Your task to perform on an android device: turn on translation in the chrome app Image 0: 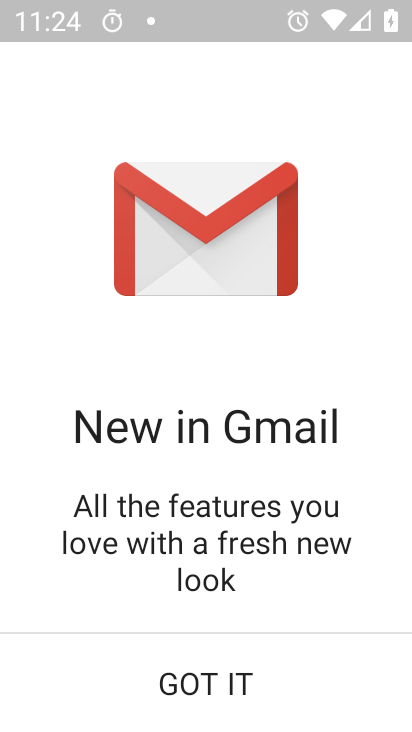
Step 0: press home button
Your task to perform on an android device: turn on translation in the chrome app Image 1: 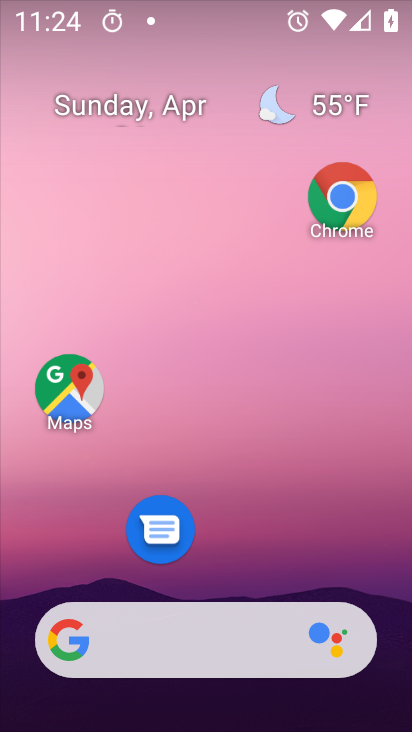
Step 1: drag from (161, 577) to (135, 22)
Your task to perform on an android device: turn on translation in the chrome app Image 2: 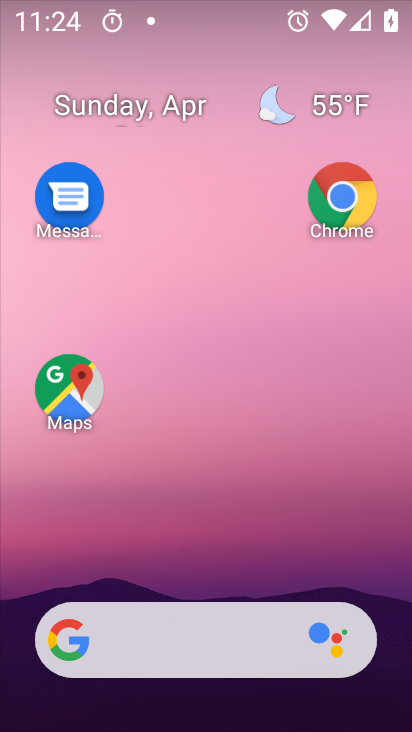
Step 2: drag from (203, 594) to (203, 55)
Your task to perform on an android device: turn on translation in the chrome app Image 3: 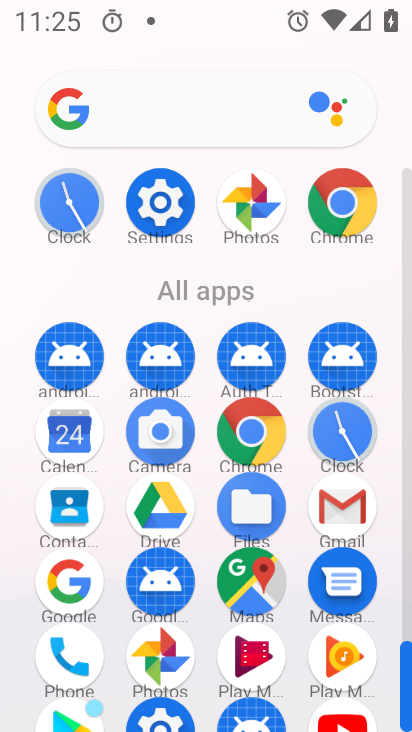
Step 3: click (244, 413)
Your task to perform on an android device: turn on translation in the chrome app Image 4: 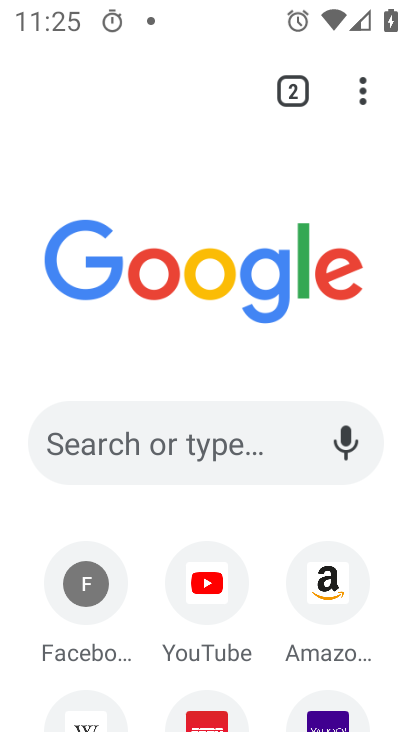
Step 4: drag from (352, 99) to (175, 565)
Your task to perform on an android device: turn on translation in the chrome app Image 5: 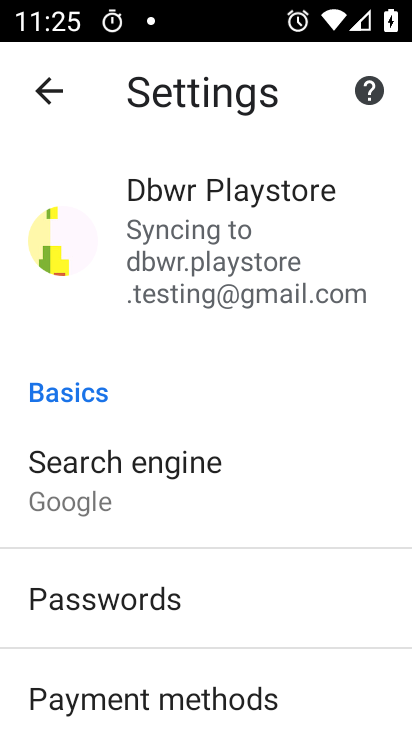
Step 5: drag from (141, 579) to (118, 9)
Your task to perform on an android device: turn on translation in the chrome app Image 6: 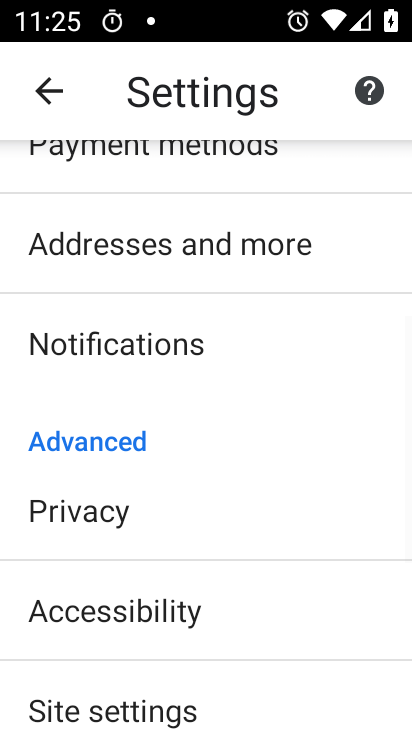
Step 6: drag from (135, 676) to (96, 166)
Your task to perform on an android device: turn on translation in the chrome app Image 7: 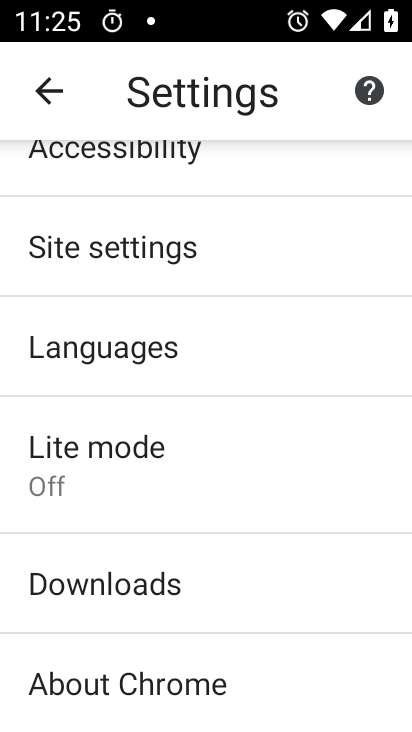
Step 7: click (100, 349)
Your task to perform on an android device: turn on translation in the chrome app Image 8: 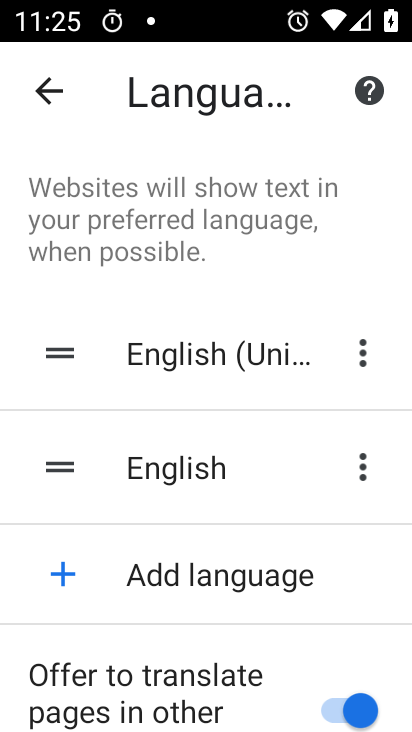
Step 8: task complete